Your task to perform on an android device: uninstall "TextNow: Call + Text Unlimited" Image 0: 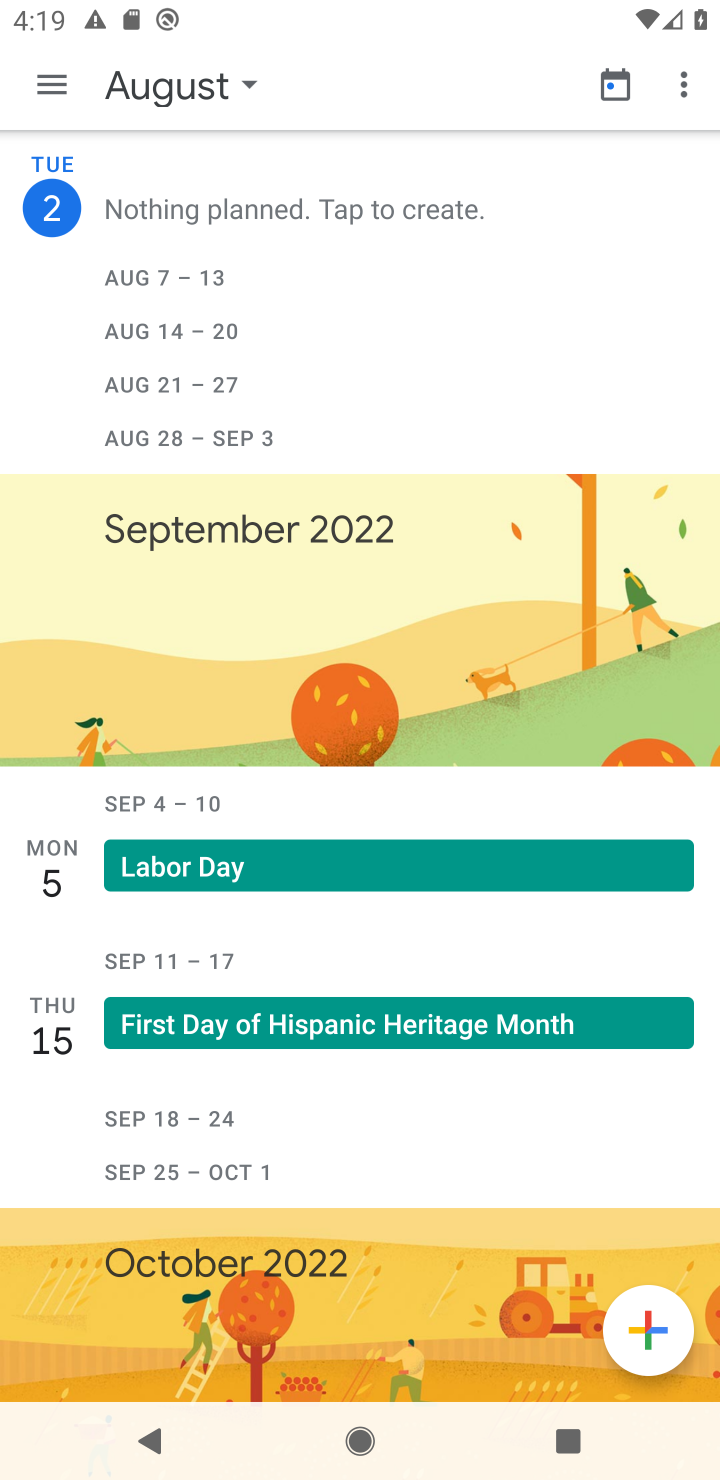
Step 0: press back button
Your task to perform on an android device: uninstall "TextNow: Call + Text Unlimited" Image 1: 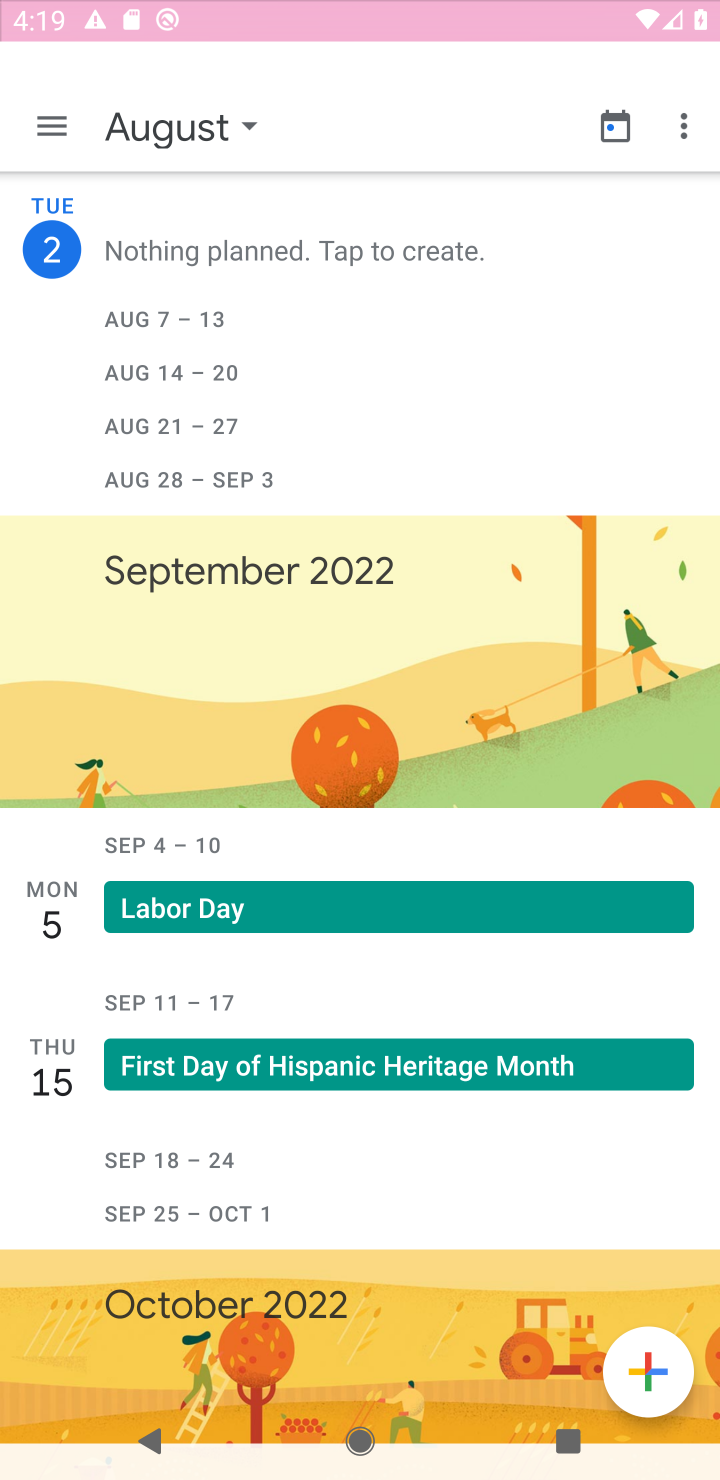
Step 1: click (237, 83)
Your task to perform on an android device: uninstall "TextNow: Call + Text Unlimited" Image 2: 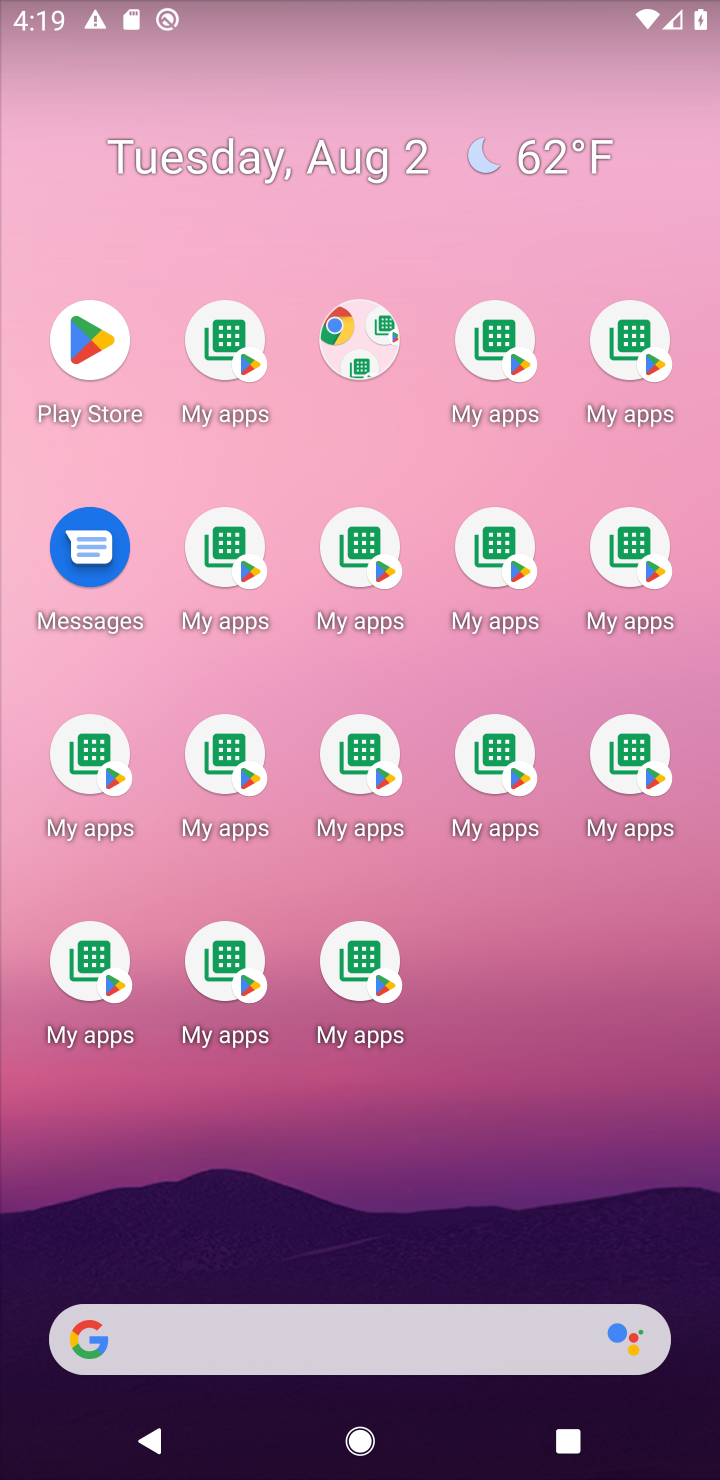
Step 2: drag from (361, 131) to (375, 480)
Your task to perform on an android device: uninstall "TextNow: Call + Text Unlimited" Image 3: 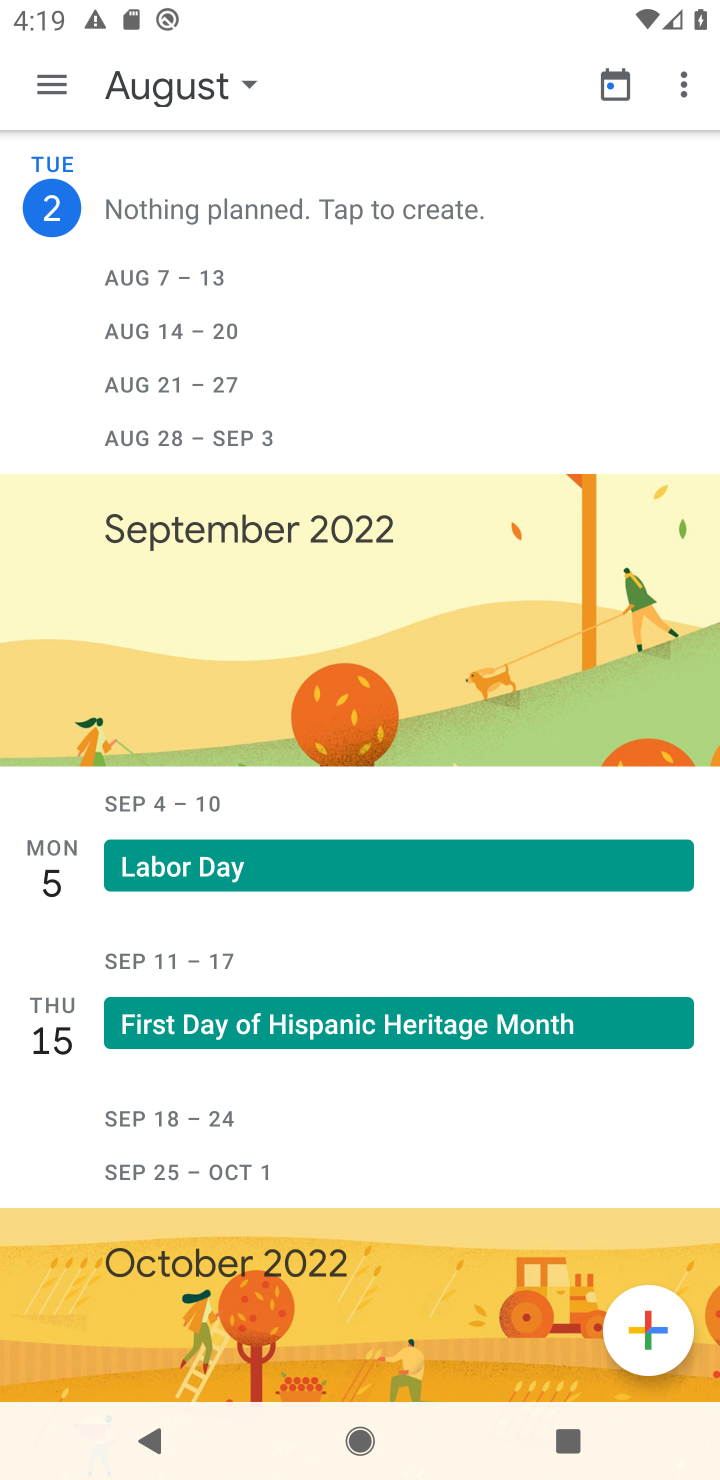
Step 3: press back button
Your task to perform on an android device: uninstall "TextNow: Call + Text Unlimited" Image 4: 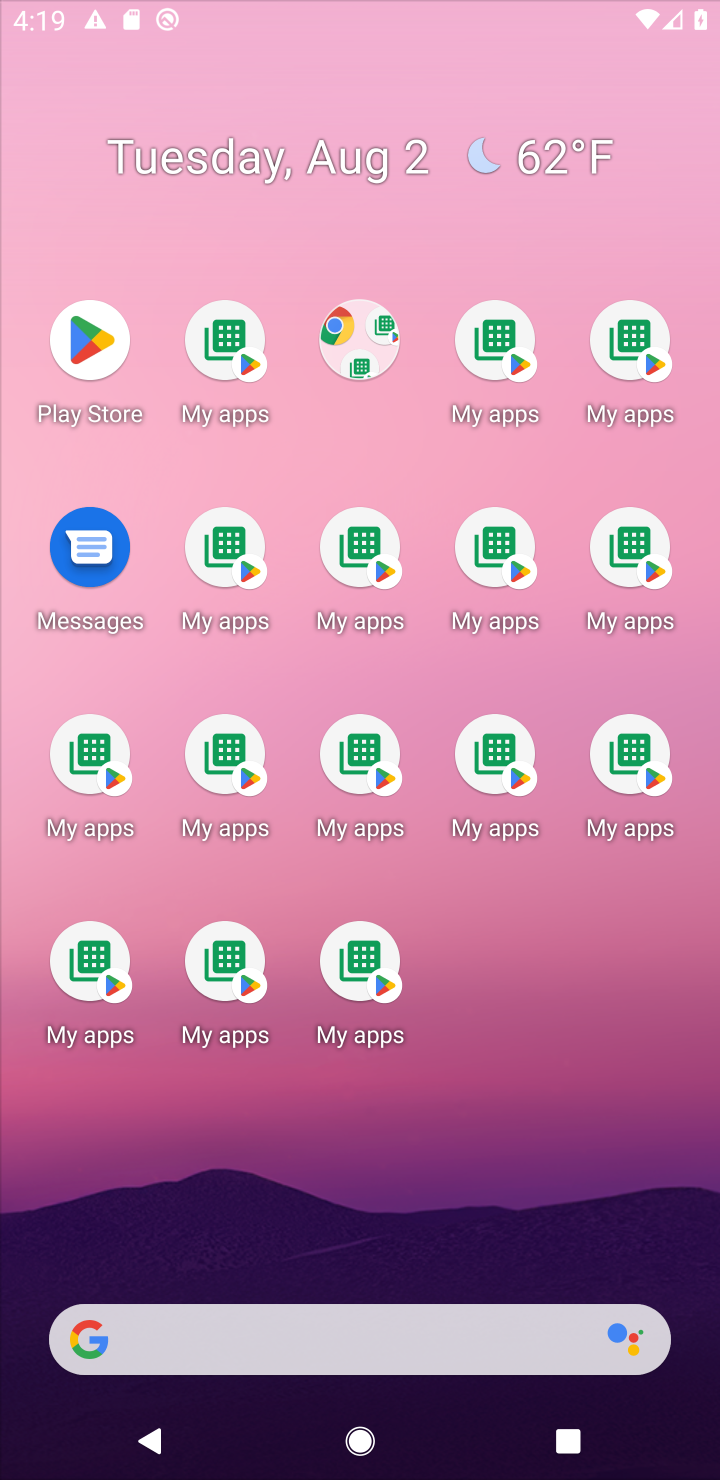
Step 4: press home button
Your task to perform on an android device: uninstall "TextNow: Call + Text Unlimited" Image 5: 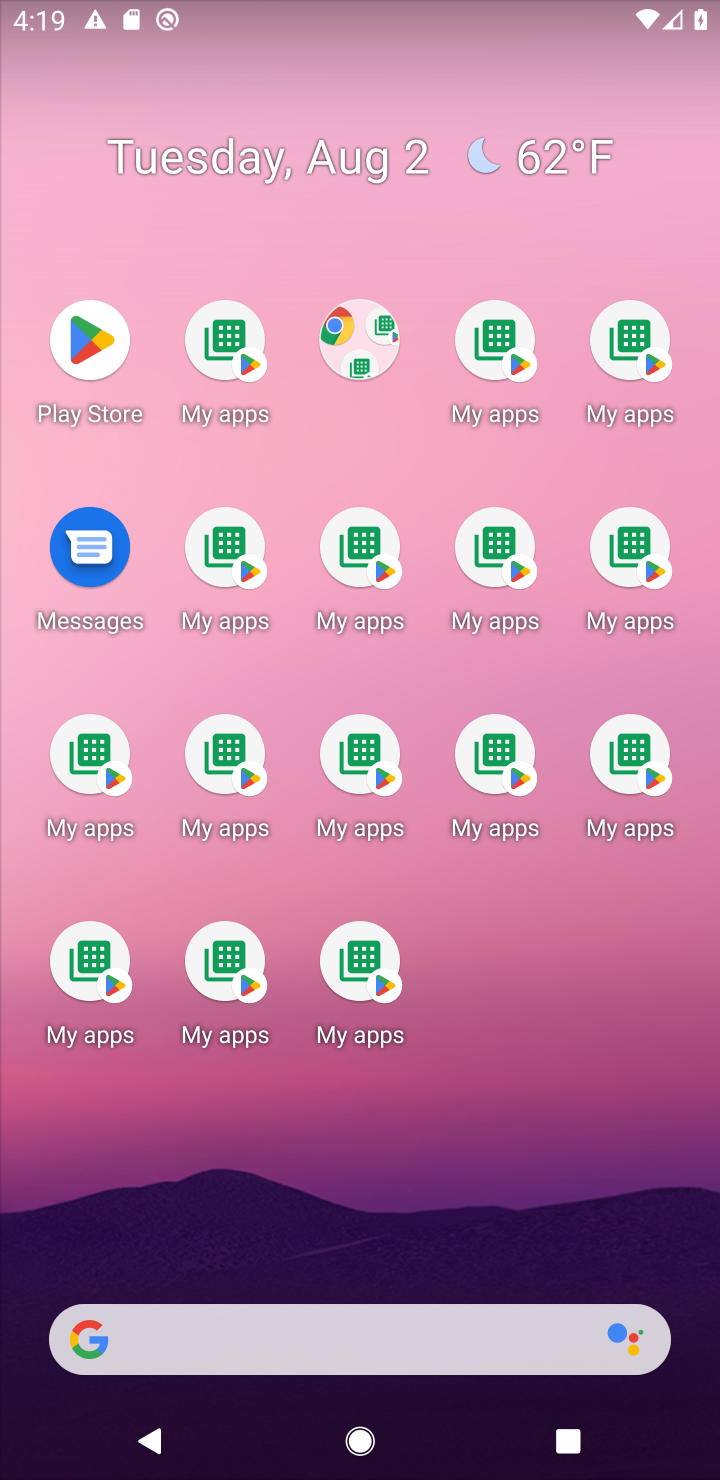
Step 5: click (91, 323)
Your task to perform on an android device: uninstall "TextNow: Call + Text Unlimited" Image 6: 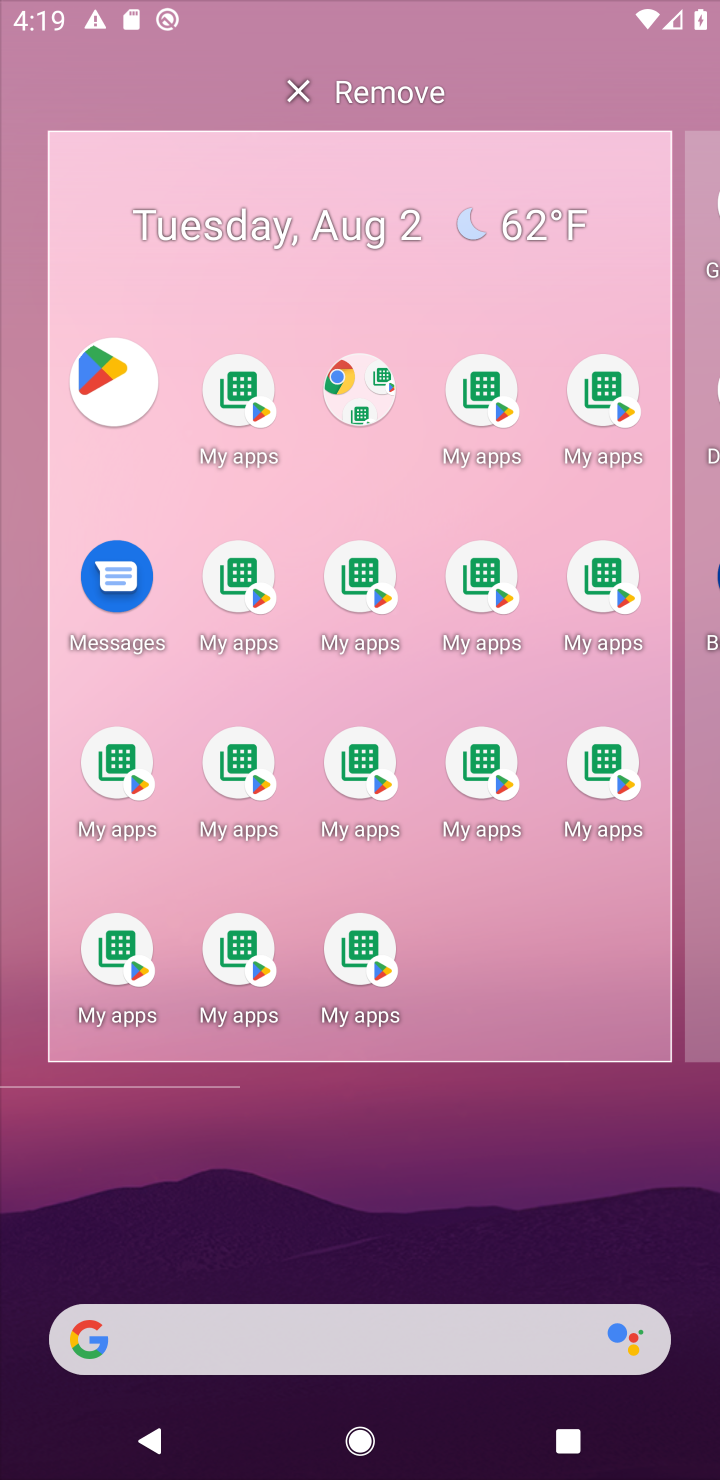
Step 6: drag from (245, 361) to (230, 272)
Your task to perform on an android device: uninstall "TextNow: Call + Text Unlimited" Image 7: 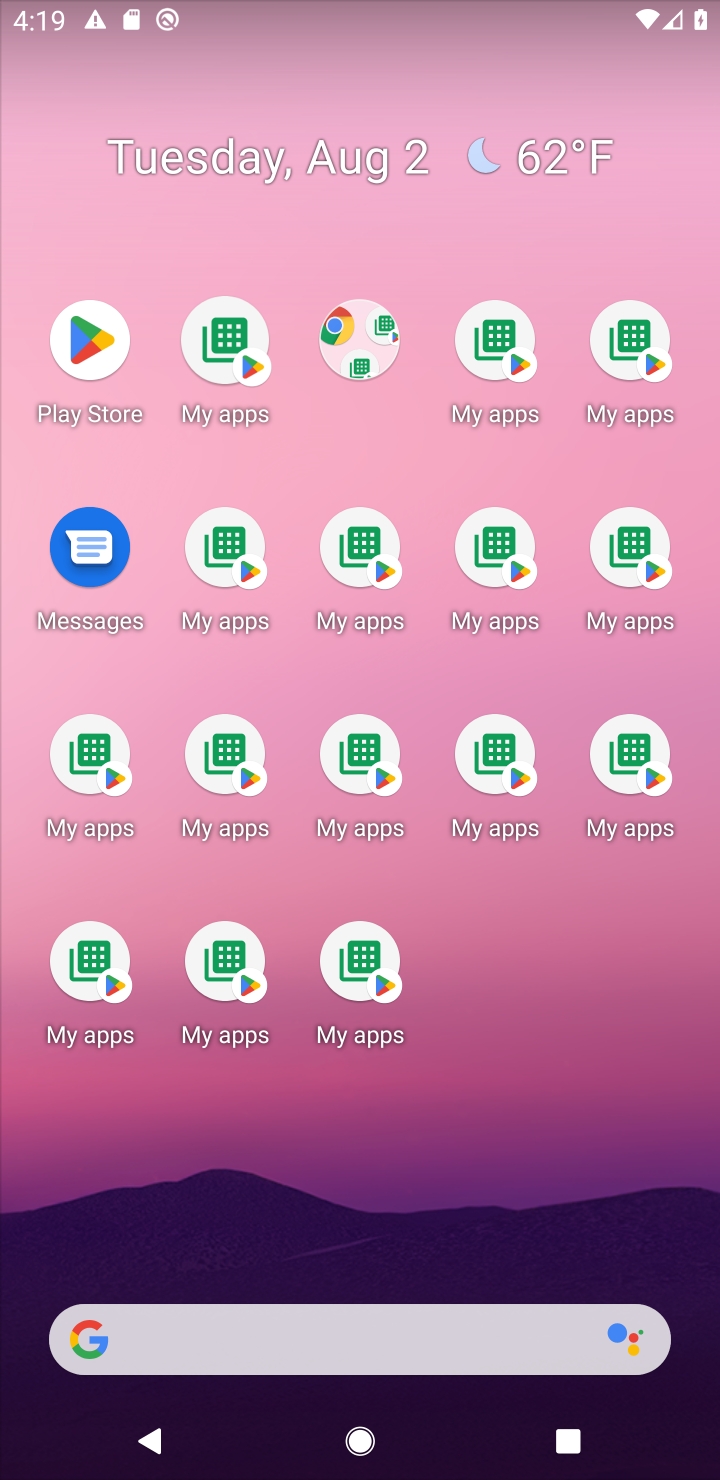
Step 7: drag from (433, 646) to (383, 197)
Your task to perform on an android device: uninstall "TextNow: Call + Text Unlimited" Image 8: 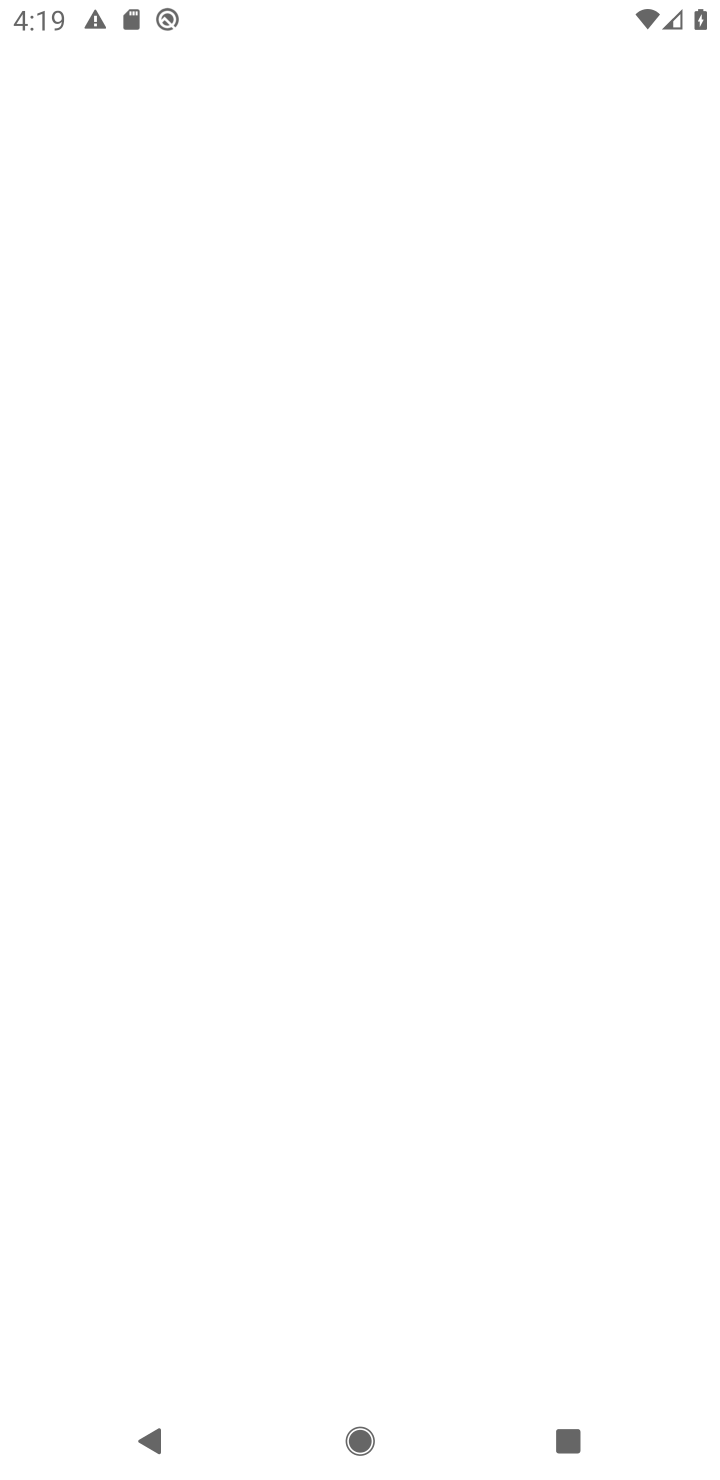
Step 8: drag from (397, 800) to (223, 130)
Your task to perform on an android device: uninstall "TextNow: Call + Text Unlimited" Image 9: 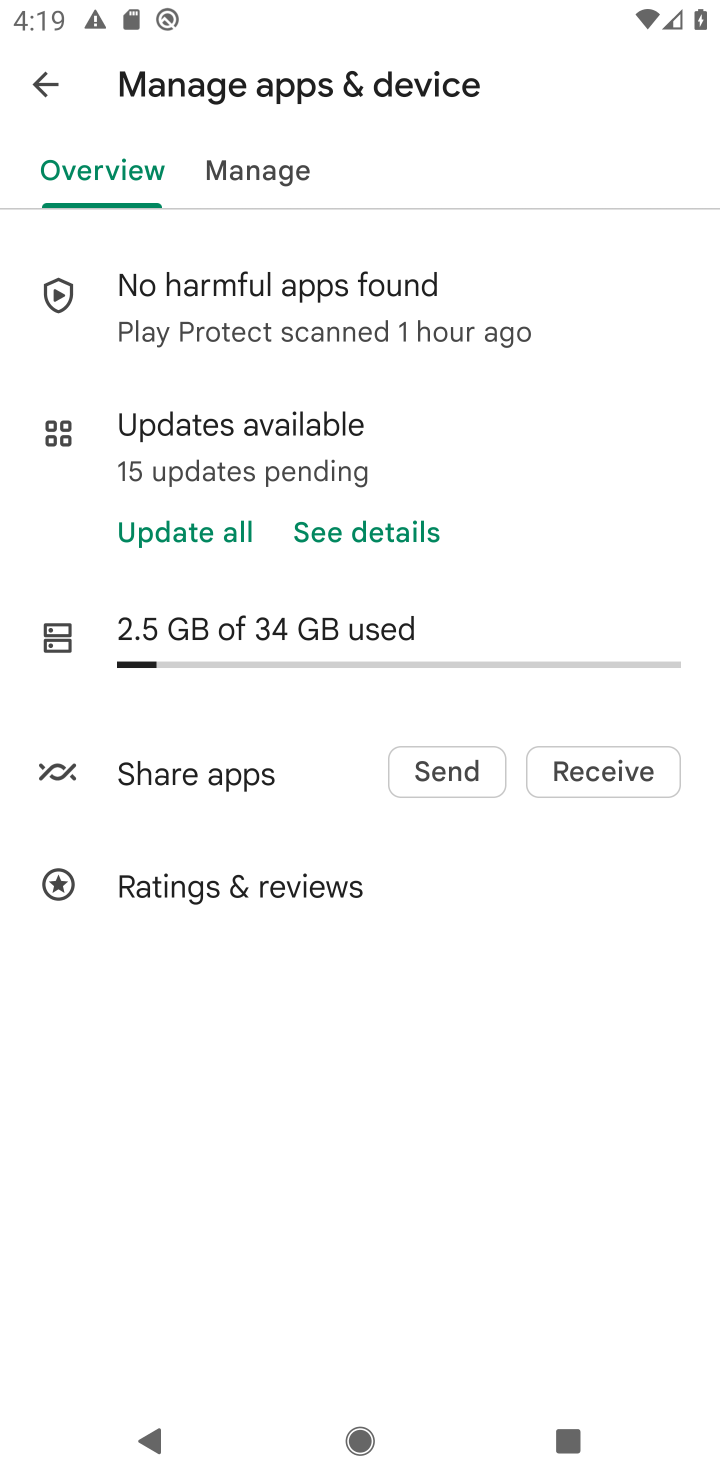
Step 9: click (36, 66)
Your task to perform on an android device: uninstall "TextNow: Call + Text Unlimited" Image 10: 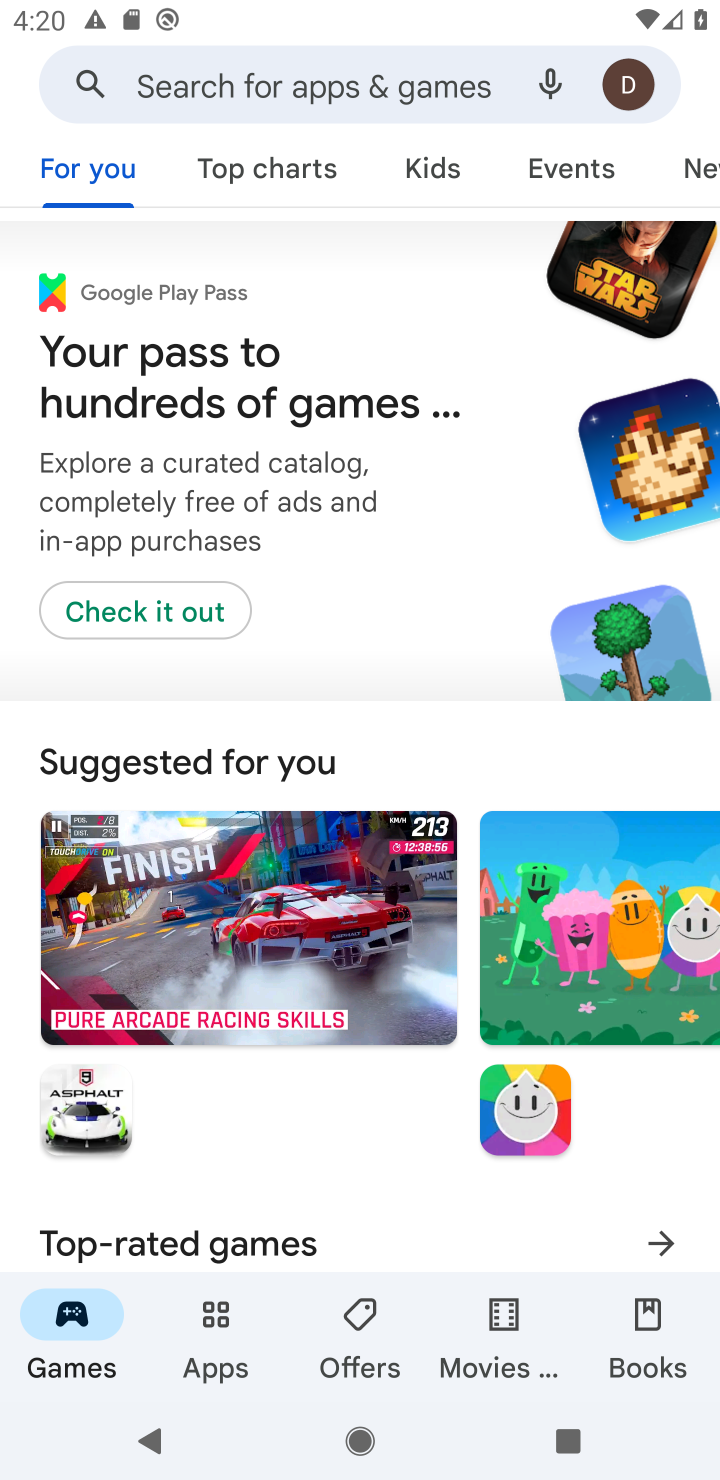
Step 10: click (332, 80)
Your task to perform on an android device: uninstall "TextNow: Call + Text Unlimited" Image 11: 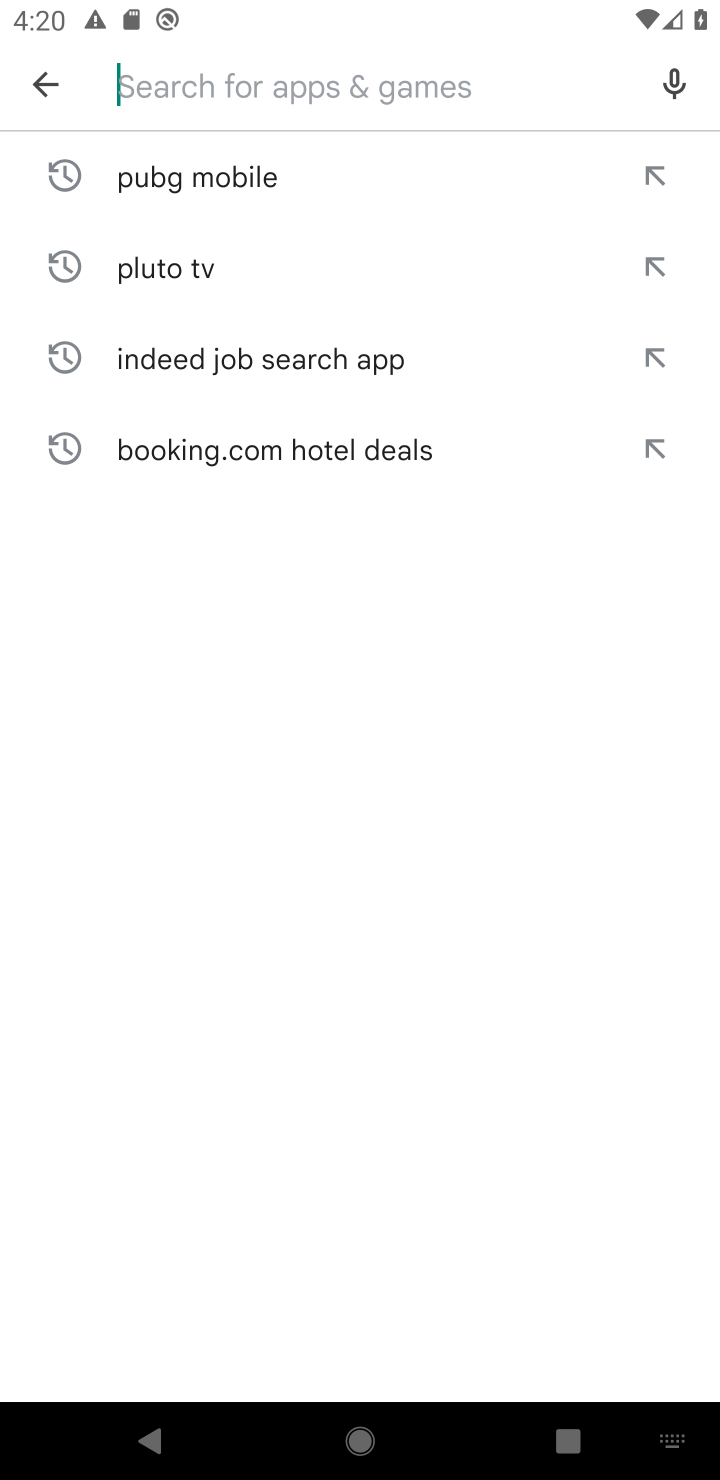
Step 11: click (186, 80)
Your task to perform on an android device: uninstall "TextNow: Call + Text Unlimited" Image 12: 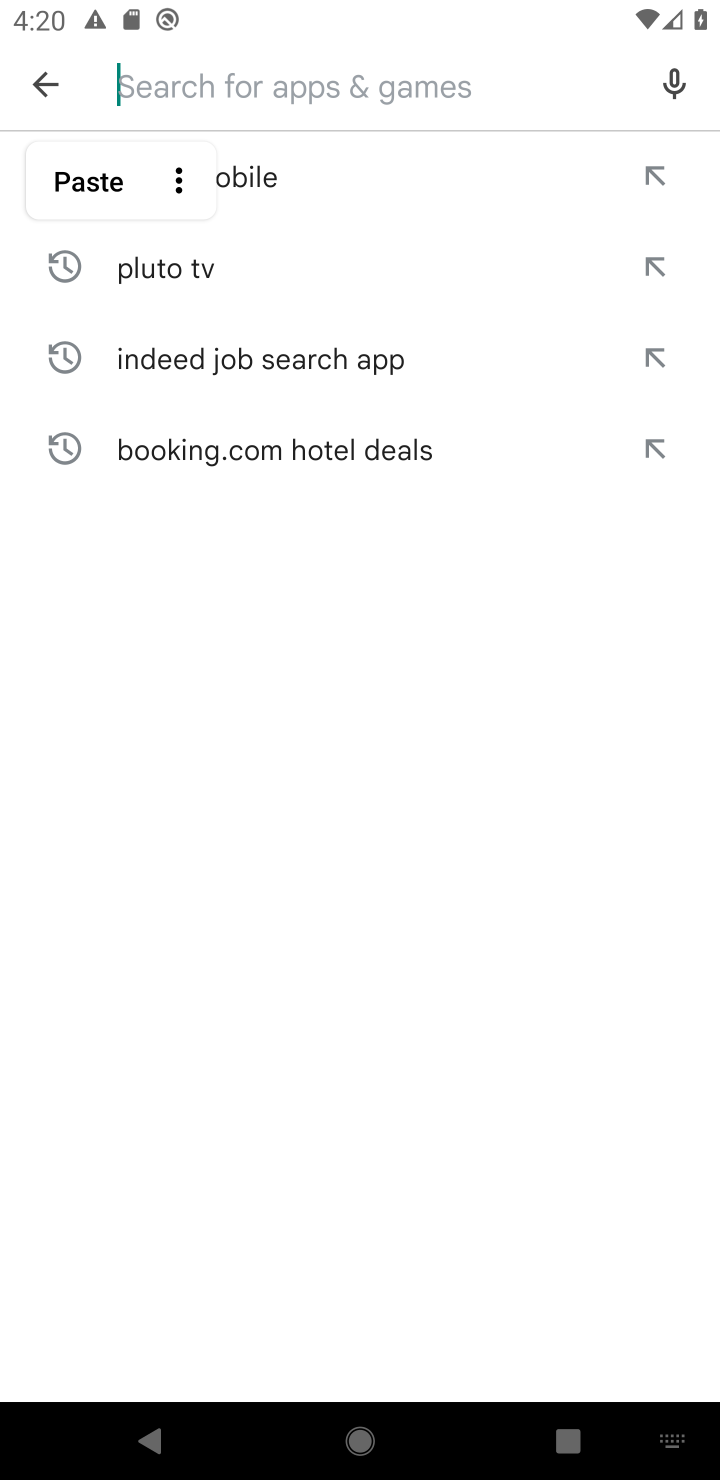
Step 12: type "textnow"
Your task to perform on an android device: uninstall "TextNow: Call + Text Unlimited" Image 13: 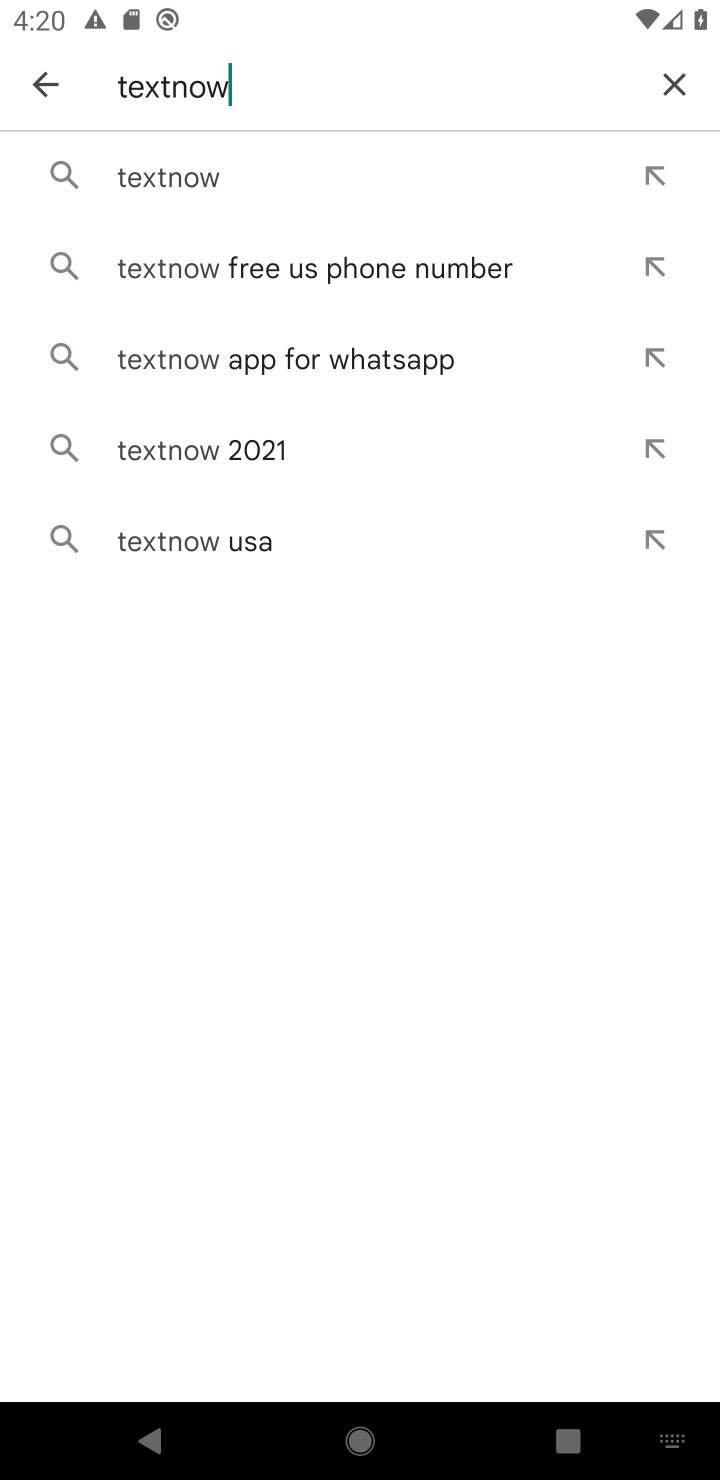
Step 13: click (160, 160)
Your task to perform on an android device: uninstall "TextNow: Call + Text Unlimited" Image 14: 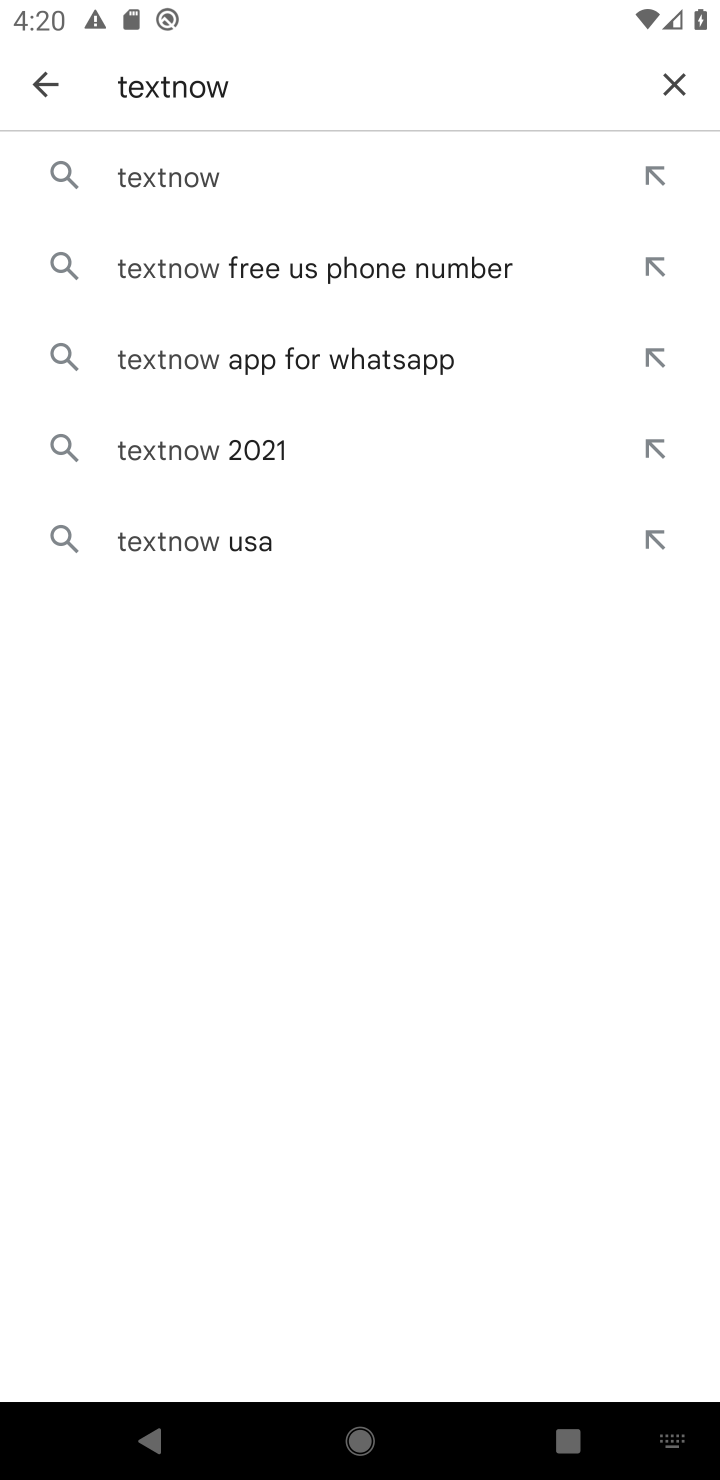
Step 14: click (170, 158)
Your task to perform on an android device: uninstall "TextNow: Call + Text Unlimited" Image 15: 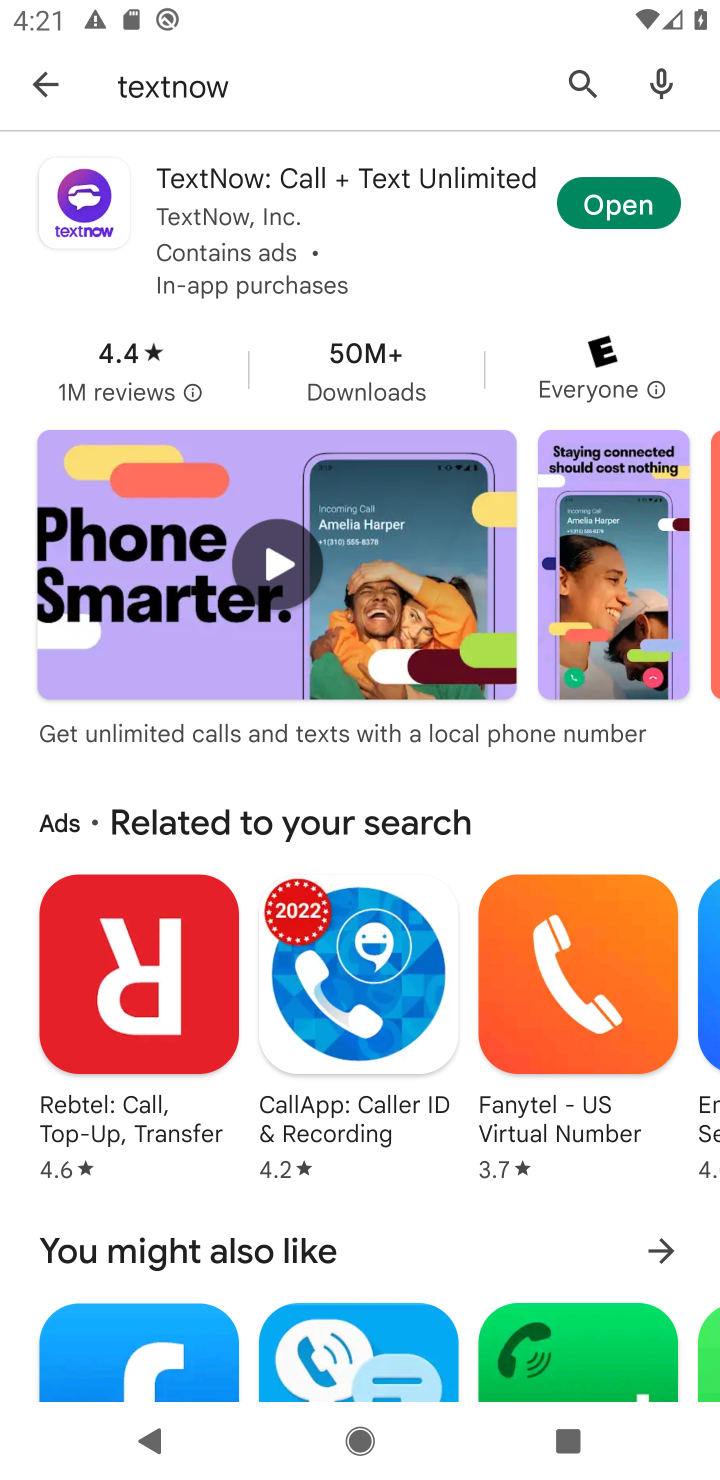
Step 15: click (604, 200)
Your task to perform on an android device: uninstall "TextNow: Call + Text Unlimited" Image 16: 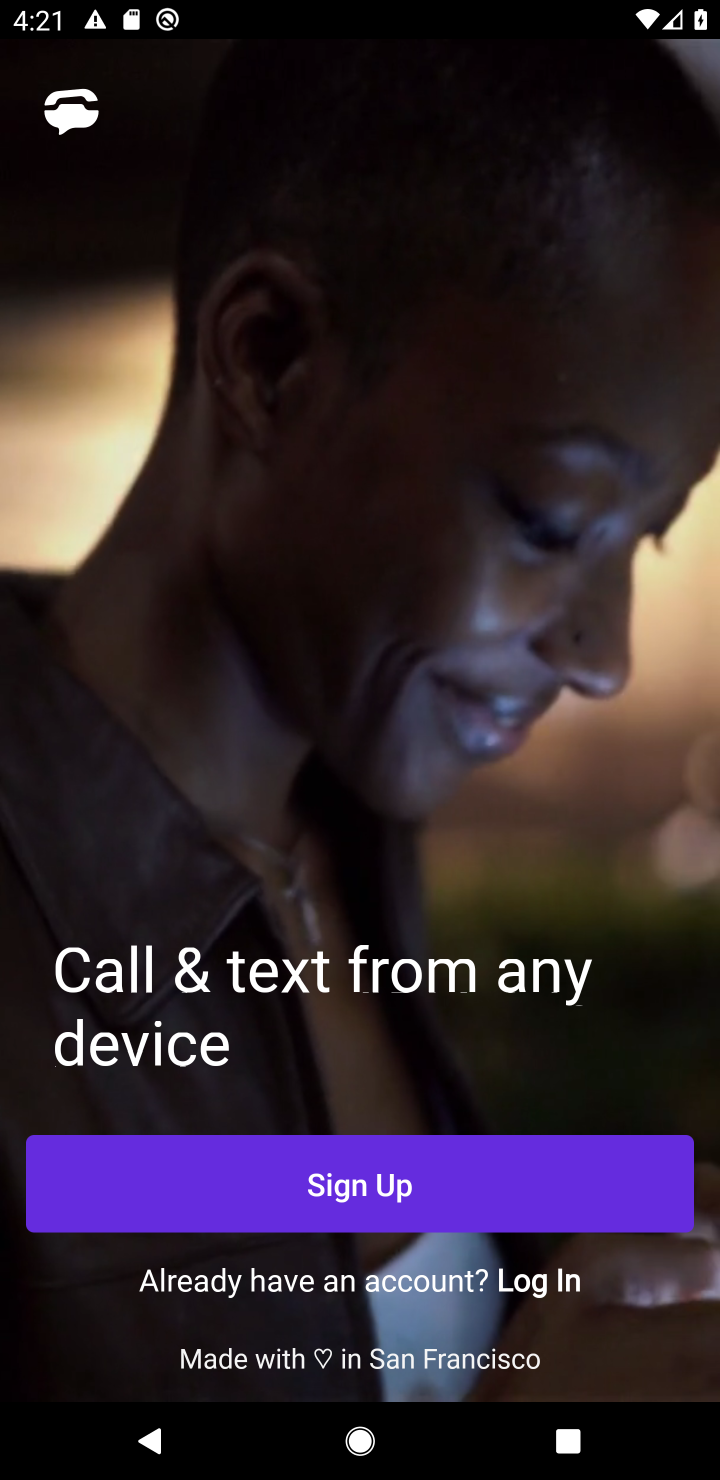
Step 16: task complete